Your task to perform on an android device: turn off location history Image 0: 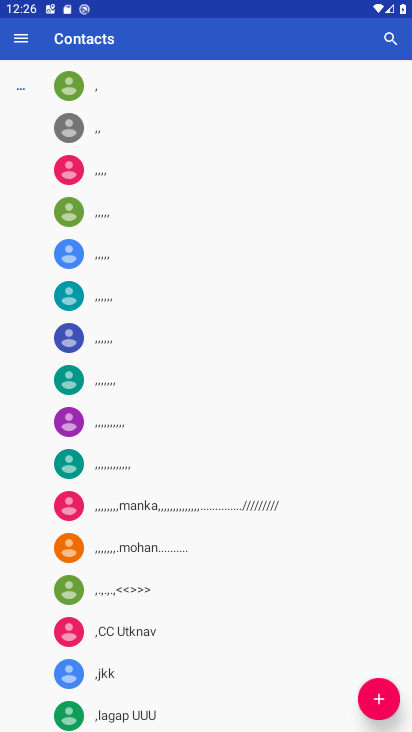
Step 0: press home button
Your task to perform on an android device: turn off location history Image 1: 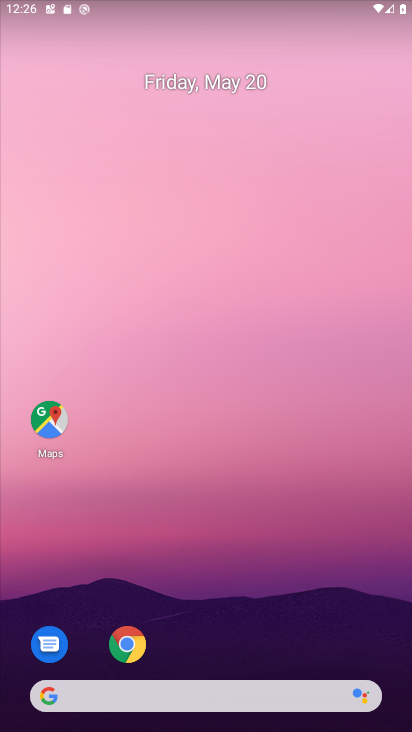
Step 1: drag from (163, 673) to (163, 318)
Your task to perform on an android device: turn off location history Image 2: 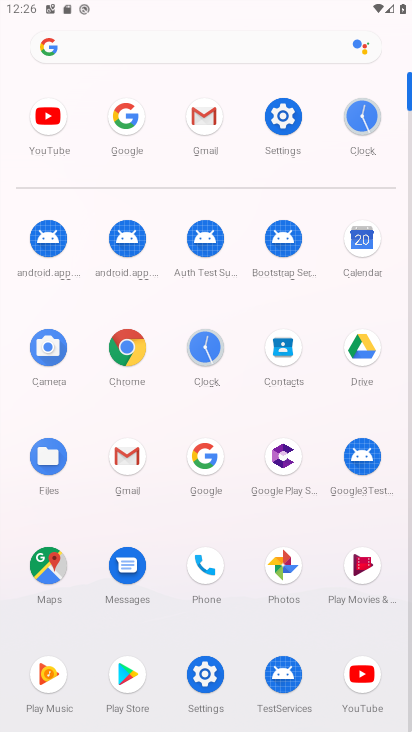
Step 2: click (291, 117)
Your task to perform on an android device: turn off location history Image 3: 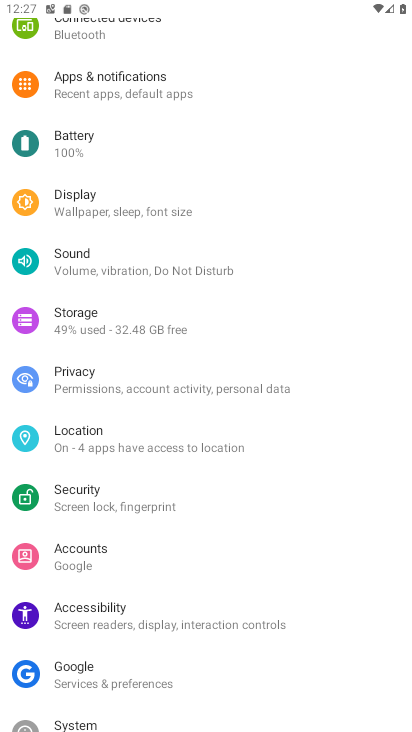
Step 3: click (101, 434)
Your task to perform on an android device: turn off location history Image 4: 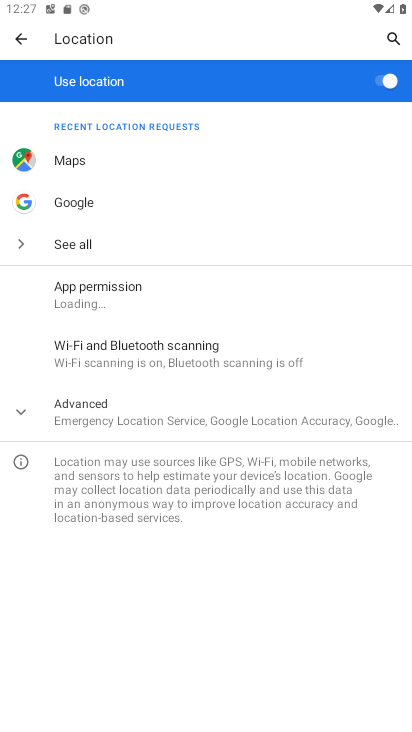
Step 4: click (124, 420)
Your task to perform on an android device: turn off location history Image 5: 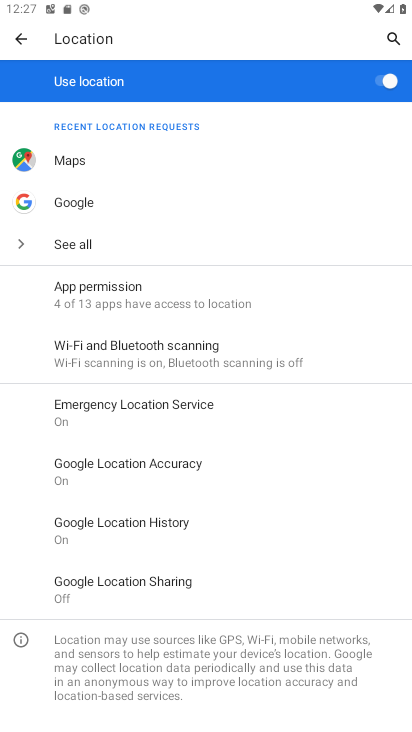
Step 5: click (144, 529)
Your task to perform on an android device: turn off location history Image 6: 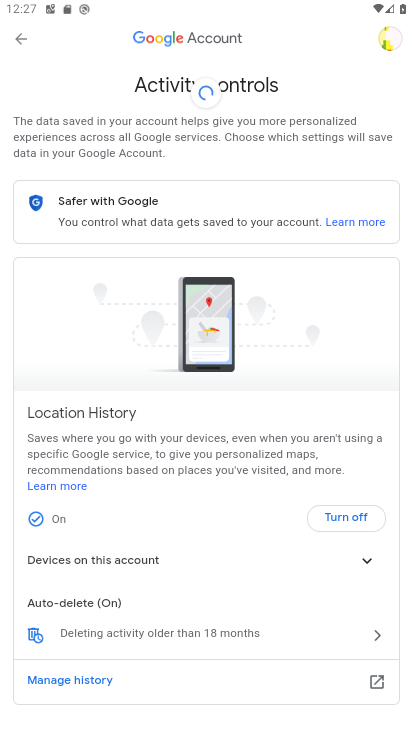
Step 6: click (354, 518)
Your task to perform on an android device: turn off location history Image 7: 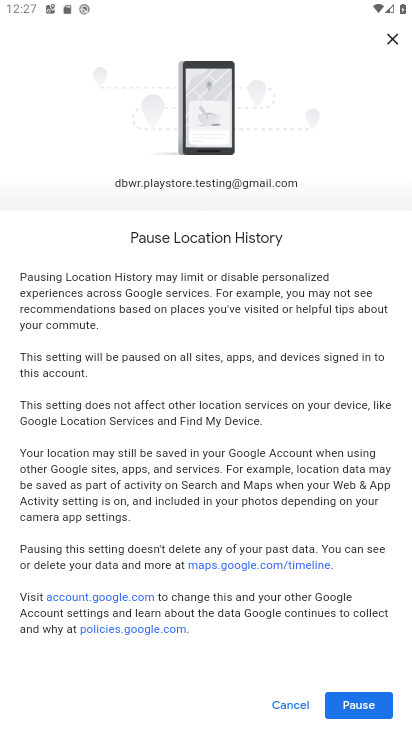
Step 7: click (376, 710)
Your task to perform on an android device: turn off location history Image 8: 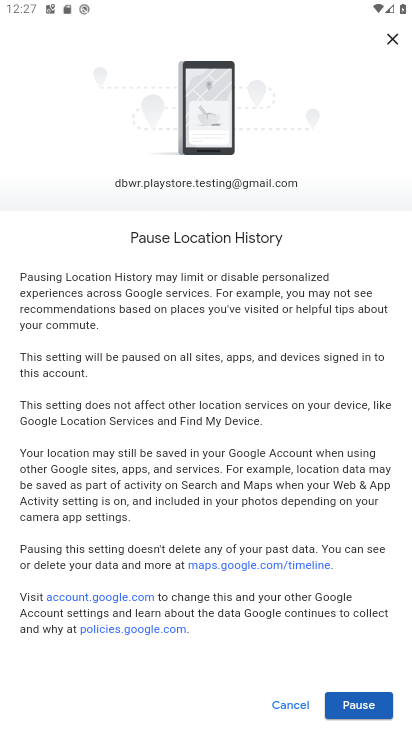
Step 8: click (360, 709)
Your task to perform on an android device: turn off location history Image 9: 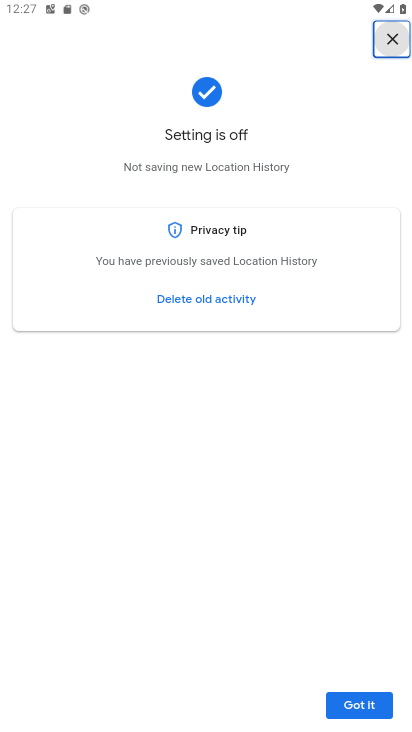
Step 9: click (367, 699)
Your task to perform on an android device: turn off location history Image 10: 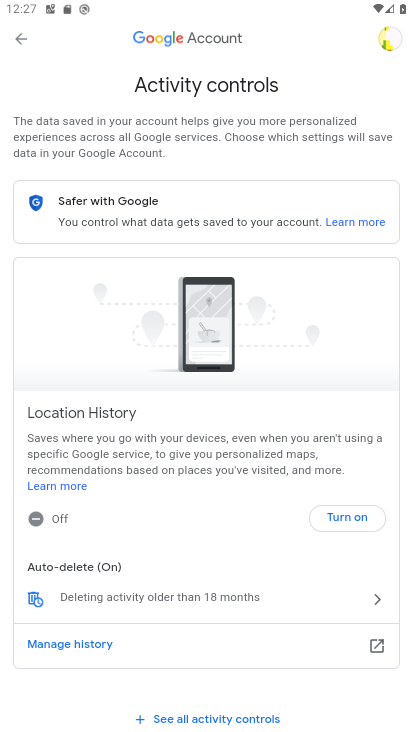
Step 10: task complete